Your task to perform on an android device: turn off translation in the chrome app Image 0: 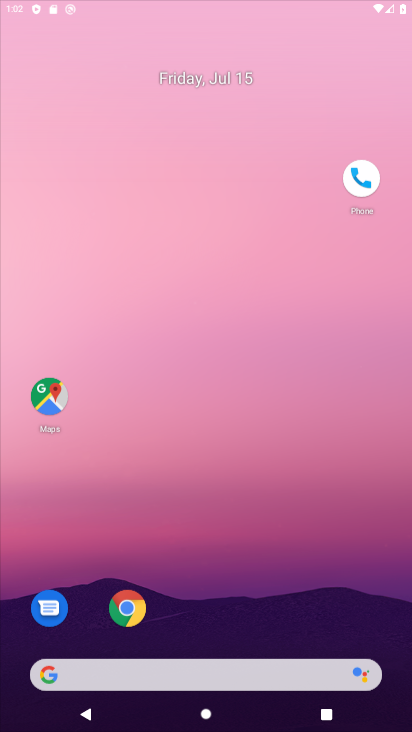
Step 0: click (277, 38)
Your task to perform on an android device: turn off translation in the chrome app Image 1: 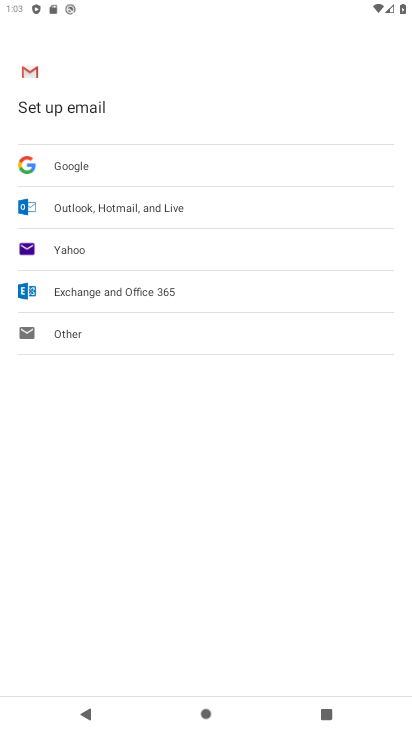
Step 1: drag from (200, 642) to (205, 330)
Your task to perform on an android device: turn off translation in the chrome app Image 2: 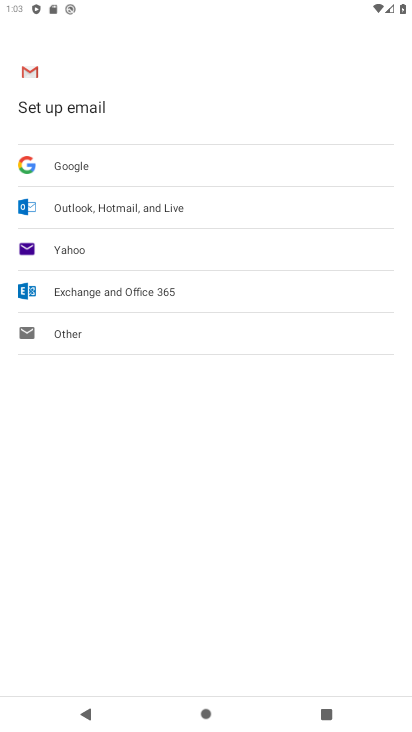
Step 2: drag from (229, 586) to (235, 425)
Your task to perform on an android device: turn off translation in the chrome app Image 3: 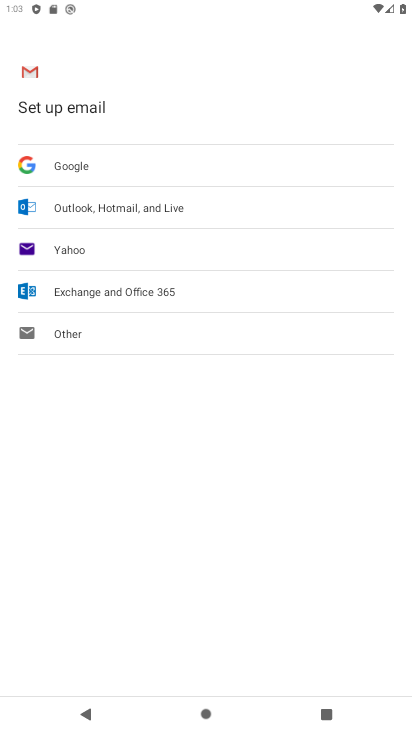
Step 3: press home button
Your task to perform on an android device: turn off translation in the chrome app Image 4: 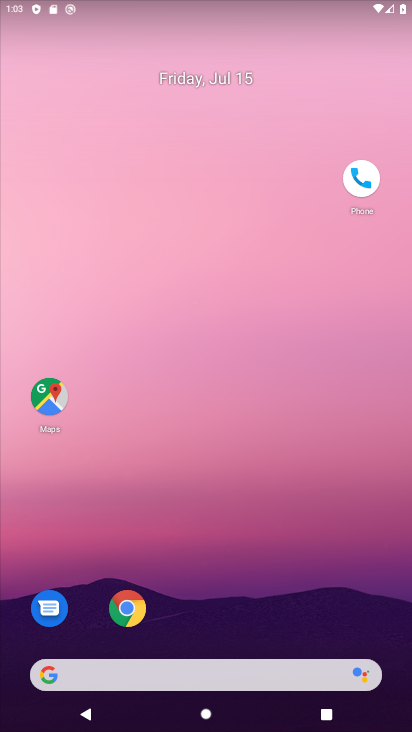
Step 4: drag from (195, 617) to (247, 87)
Your task to perform on an android device: turn off translation in the chrome app Image 5: 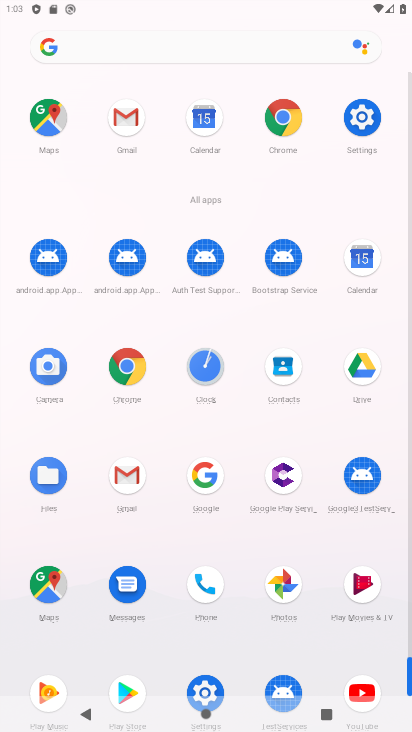
Step 5: click (128, 355)
Your task to perform on an android device: turn off translation in the chrome app Image 6: 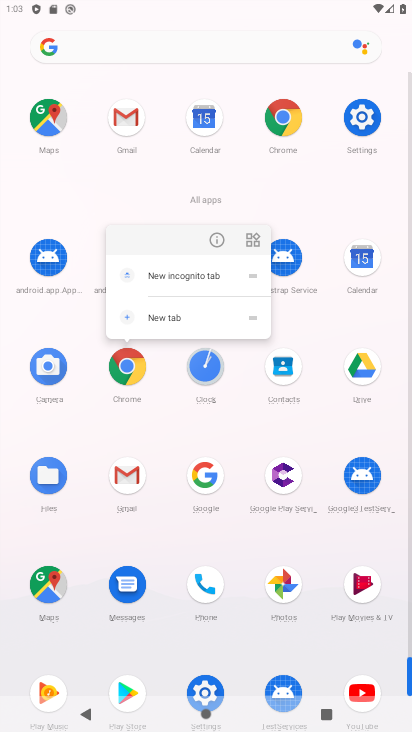
Step 6: click (224, 237)
Your task to perform on an android device: turn off translation in the chrome app Image 7: 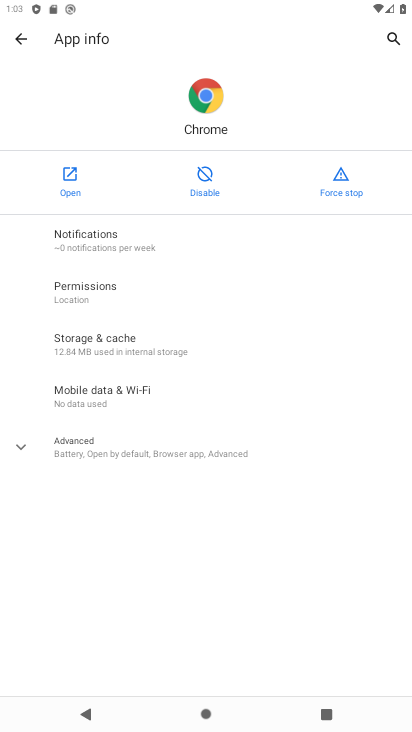
Step 7: click (74, 173)
Your task to perform on an android device: turn off translation in the chrome app Image 8: 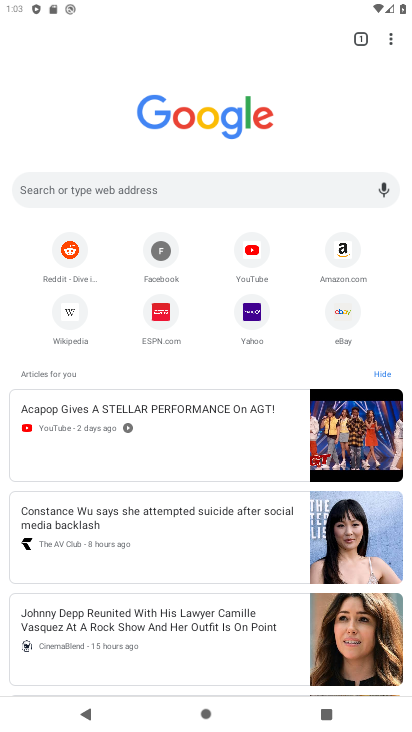
Step 8: drag from (120, 344) to (98, 116)
Your task to perform on an android device: turn off translation in the chrome app Image 9: 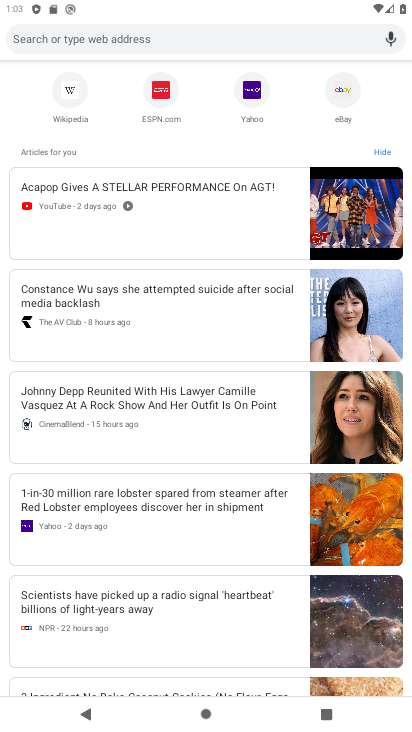
Step 9: drag from (195, 151) to (204, 556)
Your task to perform on an android device: turn off translation in the chrome app Image 10: 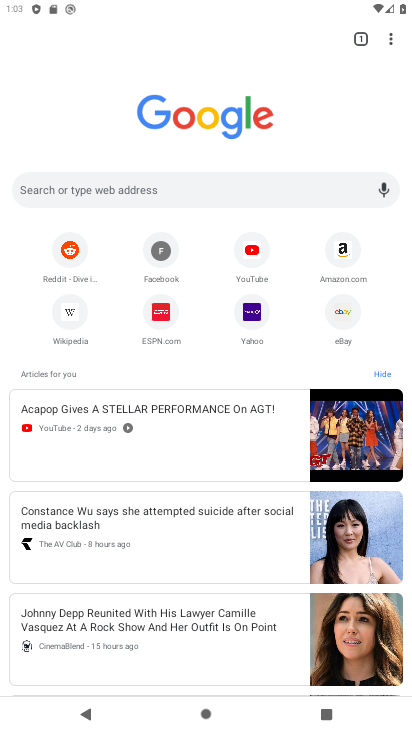
Step 10: click (388, 30)
Your task to perform on an android device: turn off translation in the chrome app Image 11: 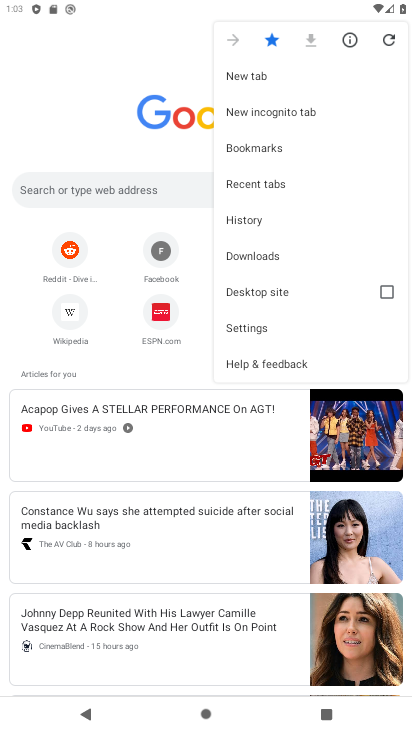
Step 11: click (259, 323)
Your task to perform on an android device: turn off translation in the chrome app Image 12: 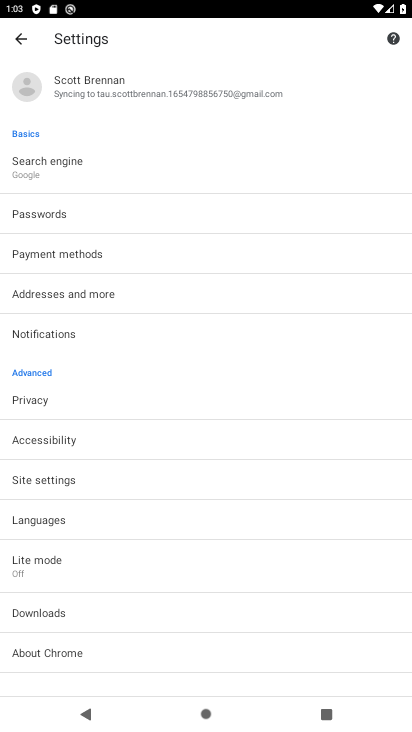
Step 12: click (68, 471)
Your task to perform on an android device: turn off translation in the chrome app Image 13: 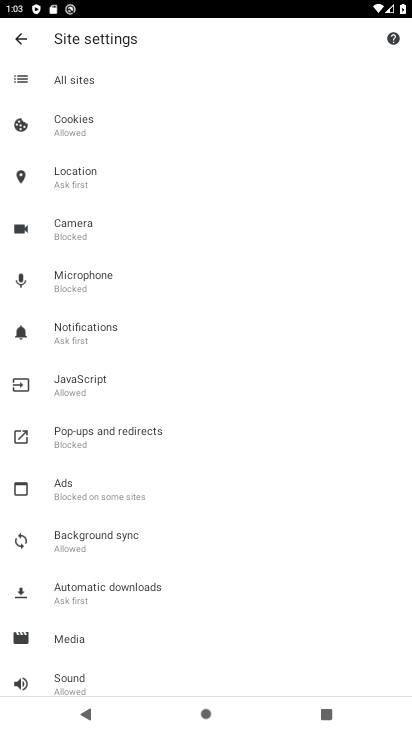
Step 13: click (19, 23)
Your task to perform on an android device: turn off translation in the chrome app Image 14: 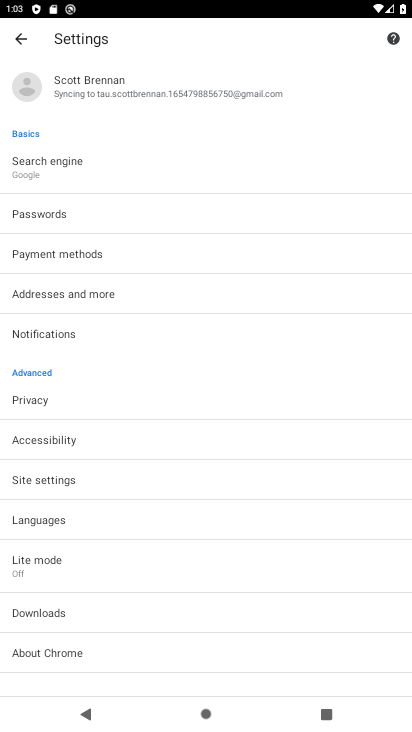
Step 14: click (62, 524)
Your task to perform on an android device: turn off translation in the chrome app Image 15: 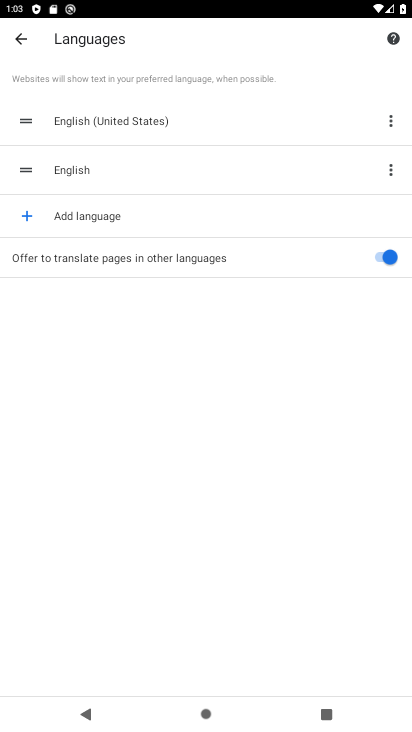
Step 15: click (372, 266)
Your task to perform on an android device: turn off translation in the chrome app Image 16: 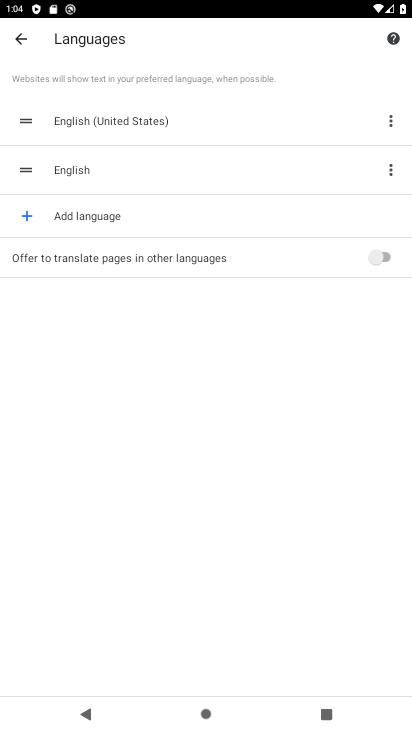
Step 16: task complete